Your task to perform on an android device: Check the weather Image 0: 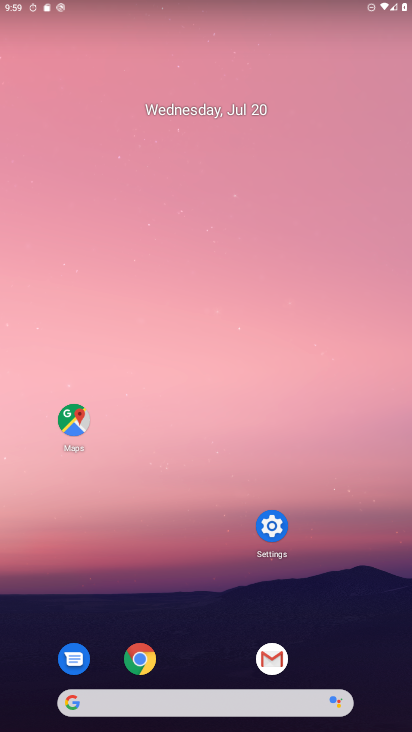
Step 0: click (169, 707)
Your task to perform on an android device: Check the weather Image 1: 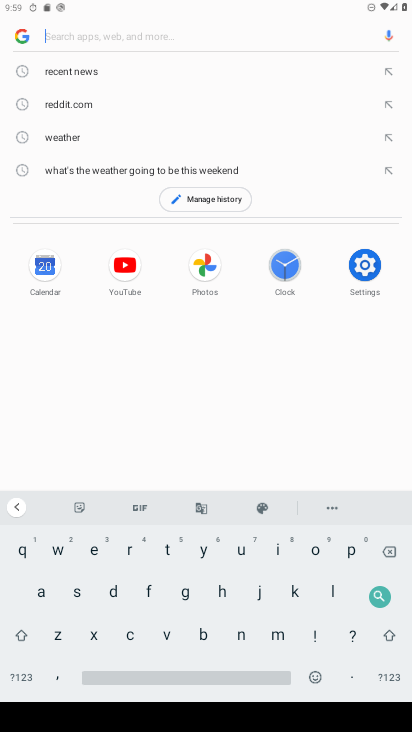
Step 1: click (81, 139)
Your task to perform on an android device: Check the weather Image 2: 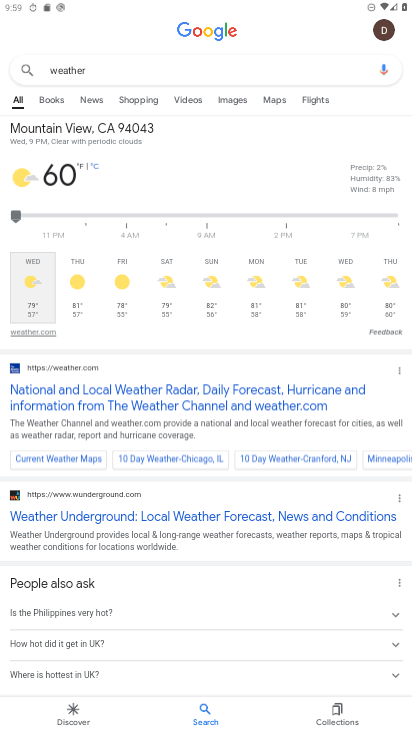
Step 2: task complete